Your task to perform on an android device: turn off picture-in-picture Image 0: 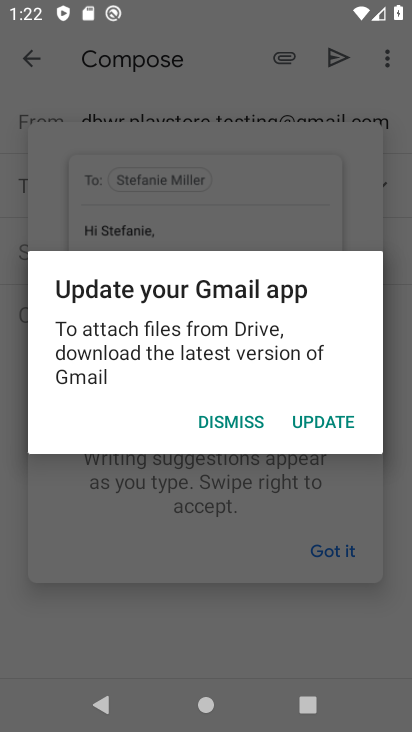
Step 0: press home button
Your task to perform on an android device: turn off picture-in-picture Image 1: 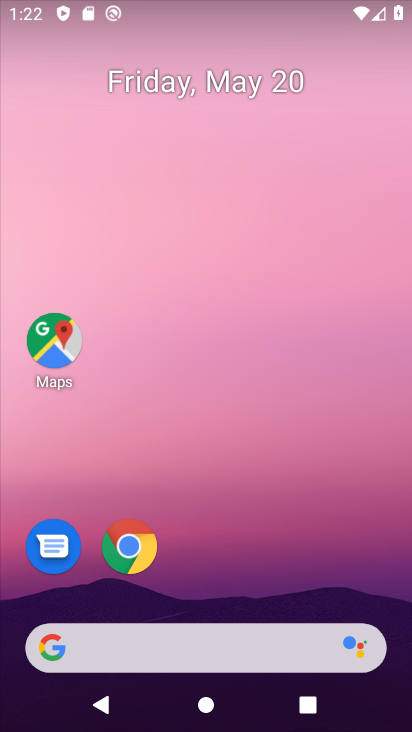
Step 1: drag from (265, 637) to (256, 40)
Your task to perform on an android device: turn off picture-in-picture Image 2: 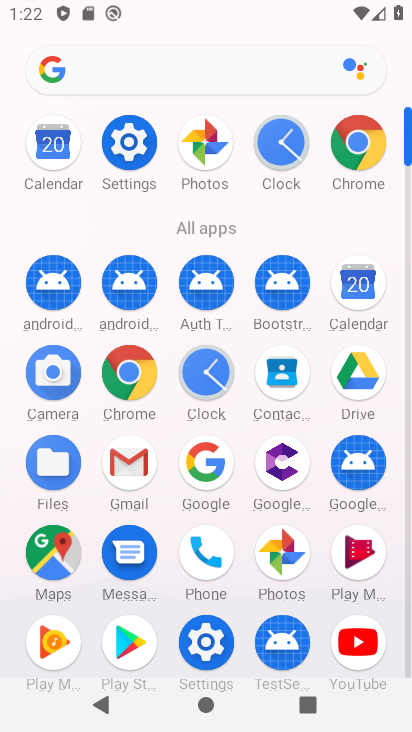
Step 2: click (123, 134)
Your task to perform on an android device: turn off picture-in-picture Image 3: 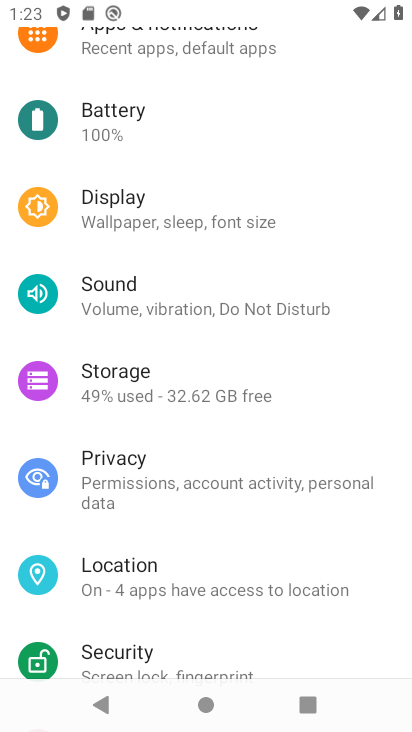
Step 3: drag from (199, 169) to (199, 553)
Your task to perform on an android device: turn off picture-in-picture Image 4: 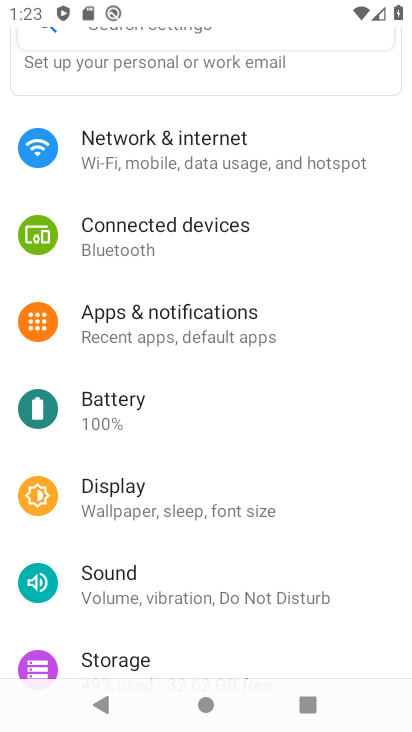
Step 4: click (177, 334)
Your task to perform on an android device: turn off picture-in-picture Image 5: 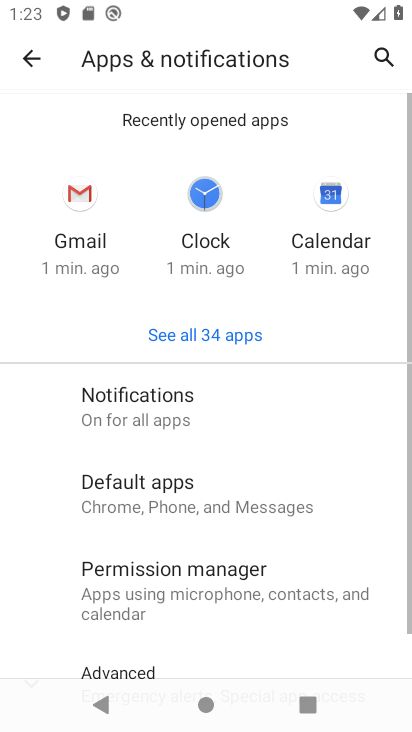
Step 5: drag from (203, 646) to (262, 103)
Your task to perform on an android device: turn off picture-in-picture Image 6: 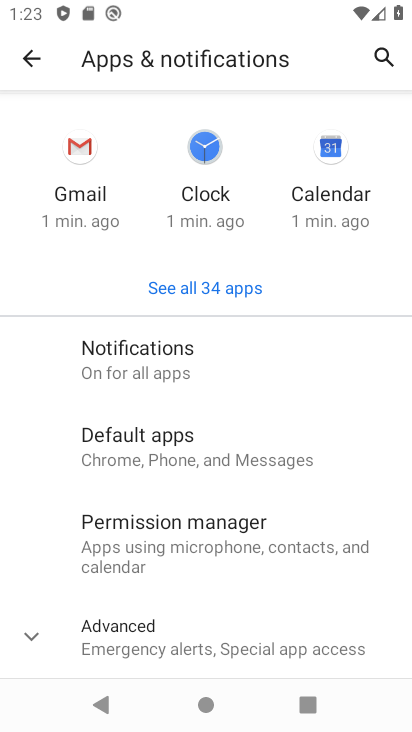
Step 6: click (163, 641)
Your task to perform on an android device: turn off picture-in-picture Image 7: 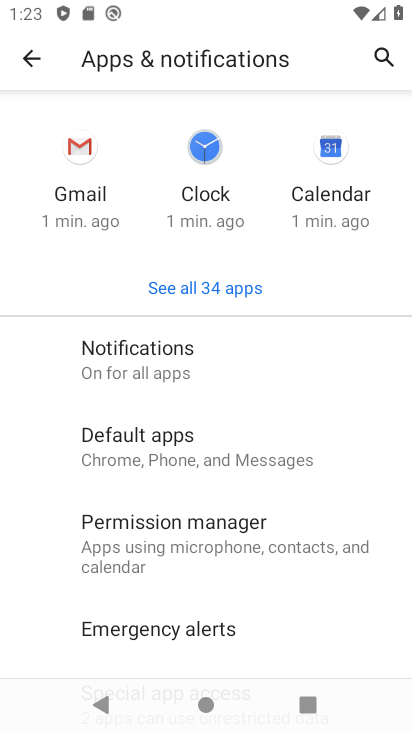
Step 7: drag from (164, 621) to (219, 134)
Your task to perform on an android device: turn off picture-in-picture Image 8: 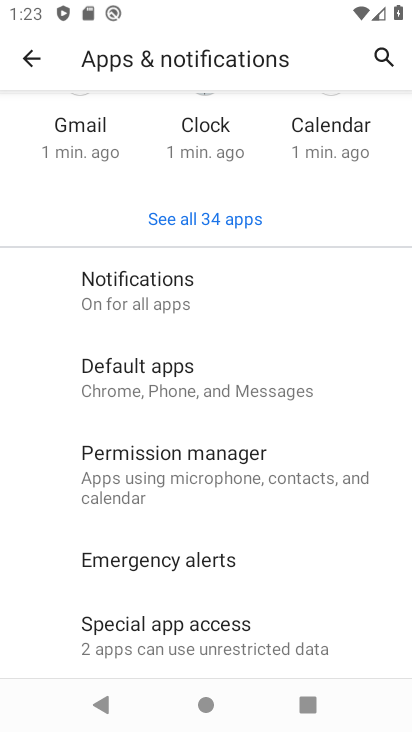
Step 8: click (180, 621)
Your task to perform on an android device: turn off picture-in-picture Image 9: 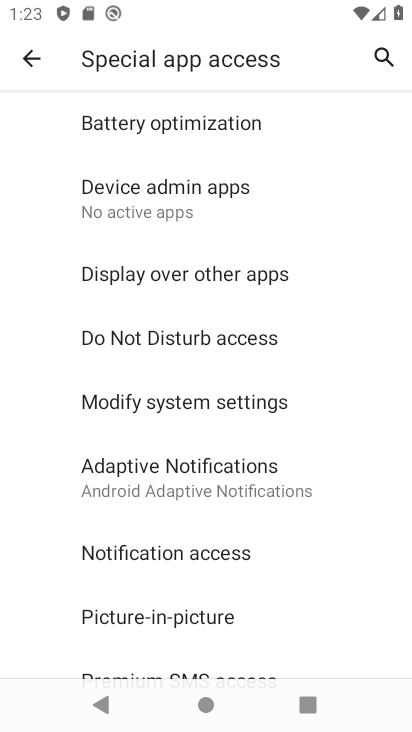
Step 9: click (212, 608)
Your task to perform on an android device: turn off picture-in-picture Image 10: 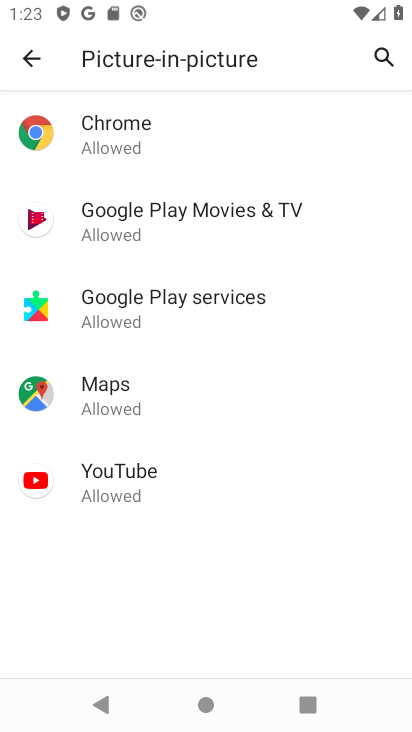
Step 10: click (154, 140)
Your task to perform on an android device: turn off picture-in-picture Image 11: 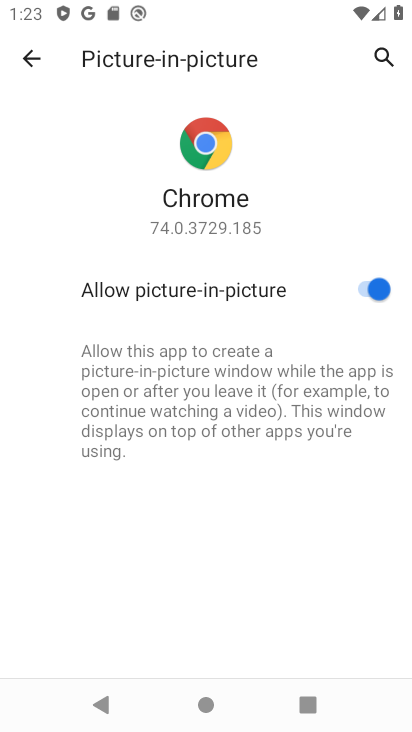
Step 11: click (365, 289)
Your task to perform on an android device: turn off picture-in-picture Image 12: 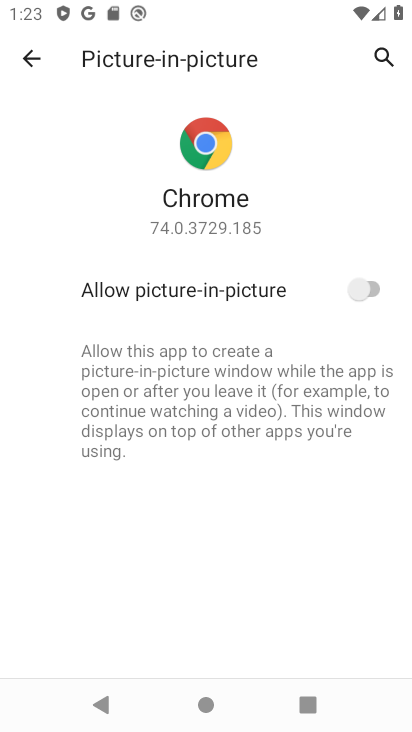
Step 12: press back button
Your task to perform on an android device: turn off picture-in-picture Image 13: 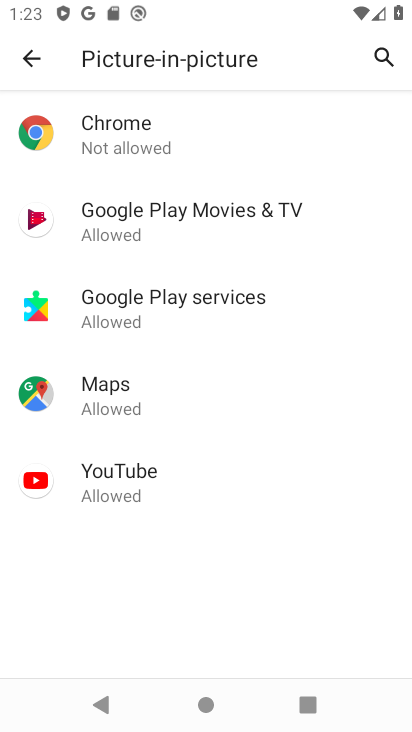
Step 13: click (186, 221)
Your task to perform on an android device: turn off picture-in-picture Image 14: 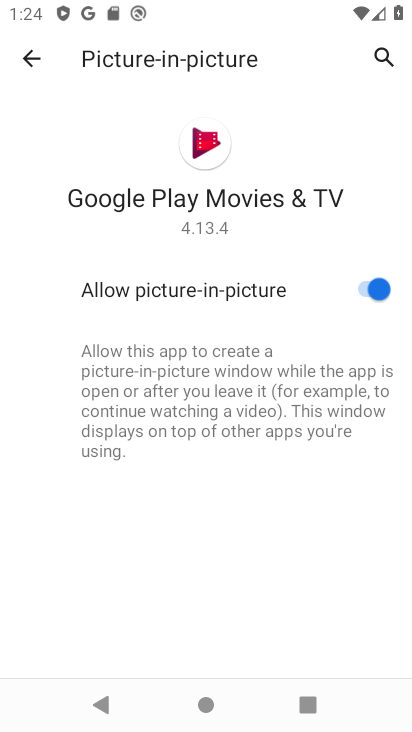
Step 14: click (359, 292)
Your task to perform on an android device: turn off picture-in-picture Image 15: 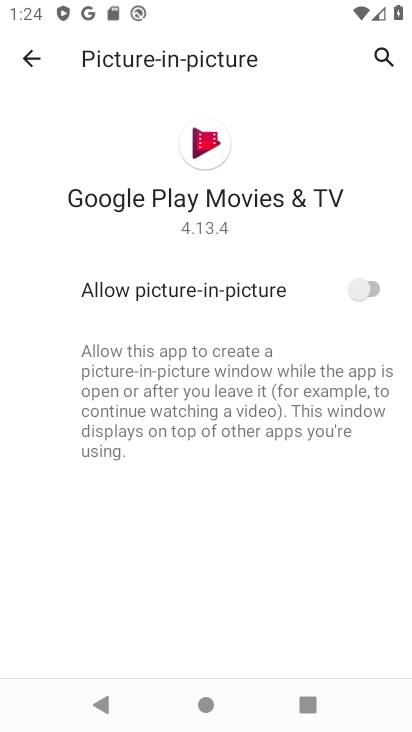
Step 15: press back button
Your task to perform on an android device: turn off picture-in-picture Image 16: 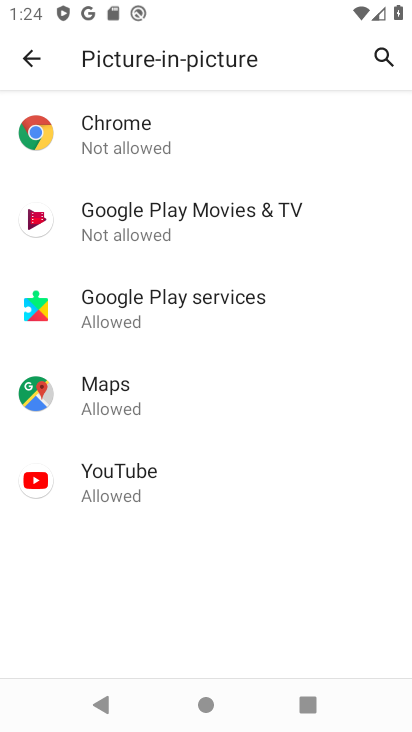
Step 16: click (195, 299)
Your task to perform on an android device: turn off picture-in-picture Image 17: 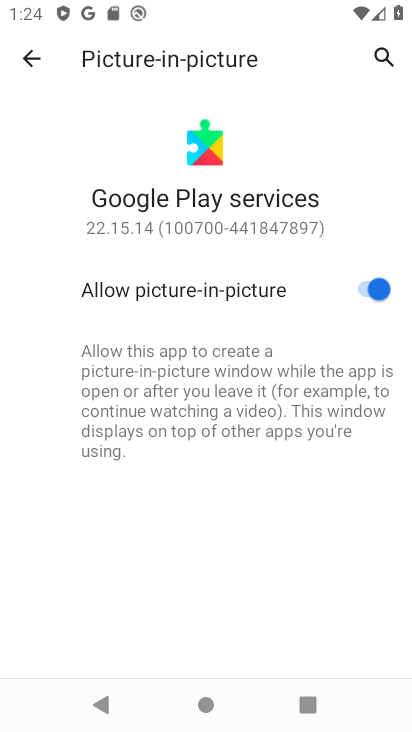
Step 17: click (364, 292)
Your task to perform on an android device: turn off picture-in-picture Image 18: 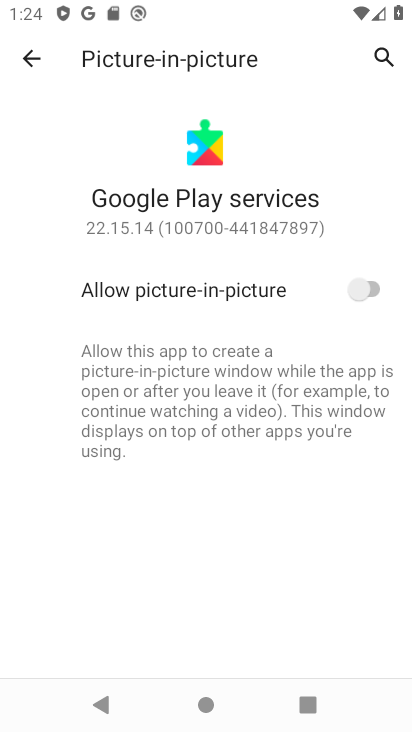
Step 18: press back button
Your task to perform on an android device: turn off picture-in-picture Image 19: 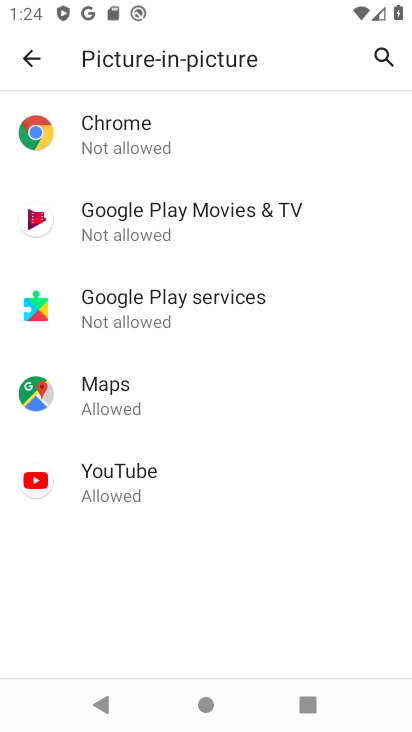
Step 19: click (171, 406)
Your task to perform on an android device: turn off picture-in-picture Image 20: 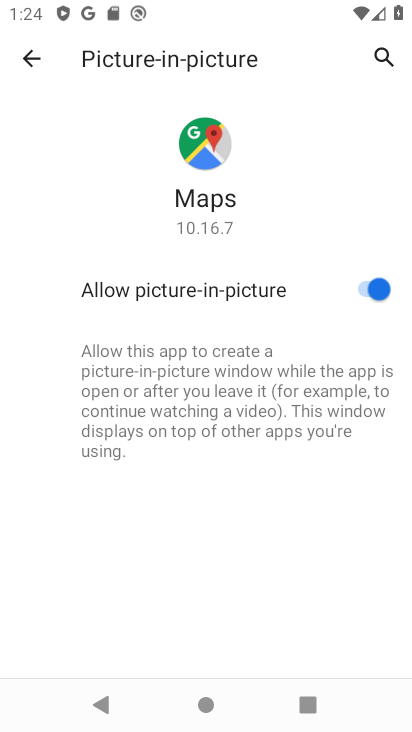
Step 20: click (358, 290)
Your task to perform on an android device: turn off picture-in-picture Image 21: 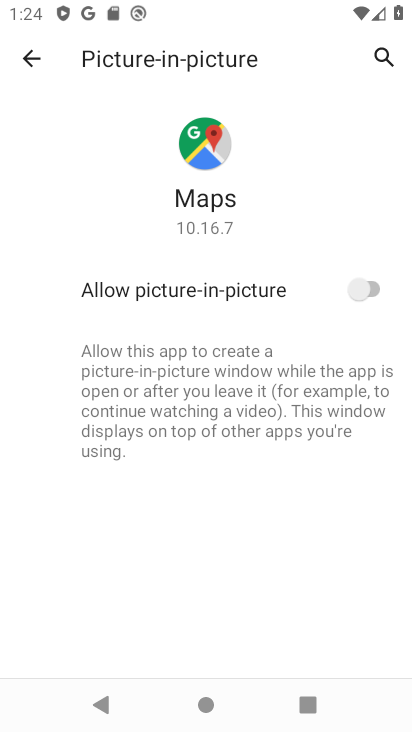
Step 21: press back button
Your task to perform on an android device: turn off picture-in-picture Image 22: 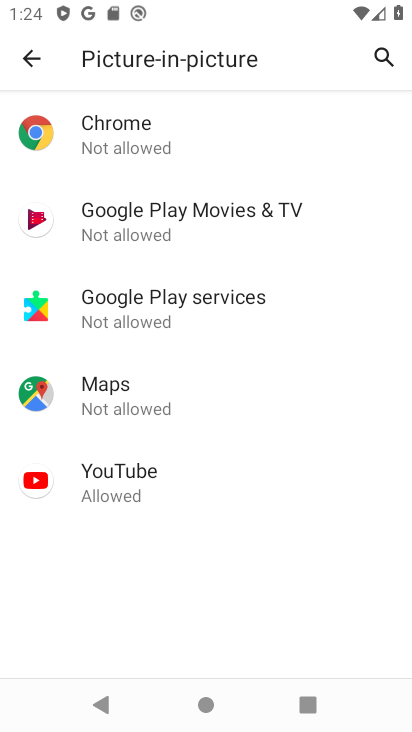
Step 22: click (178, 486)
Your task to perform on an android device: turn off picture-in-picture Image 23: 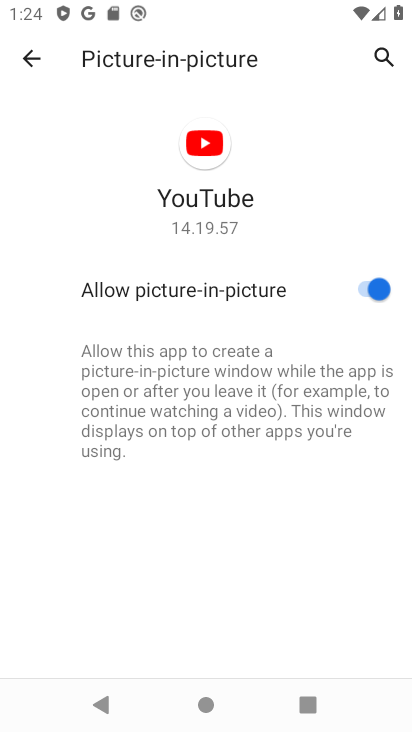
Step 23: click (363, 286)
Your task to perform on an android device: turn off picture-in-picture Image 24: 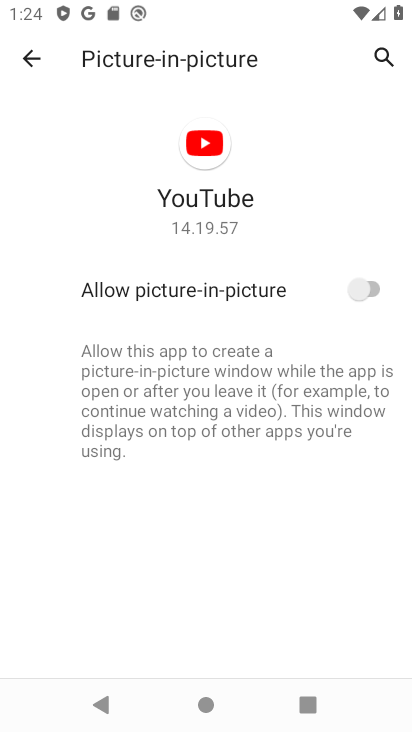
Step 24: task complete